Your task to perform on an android device: Go to Google Image 0: 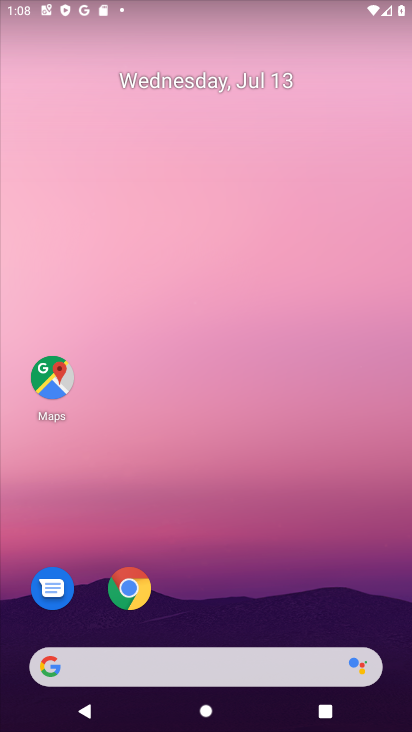
Step 0: drag from (309, 590) to (196, 14)
Your task to perform on an android device: Go to Google Image 1: 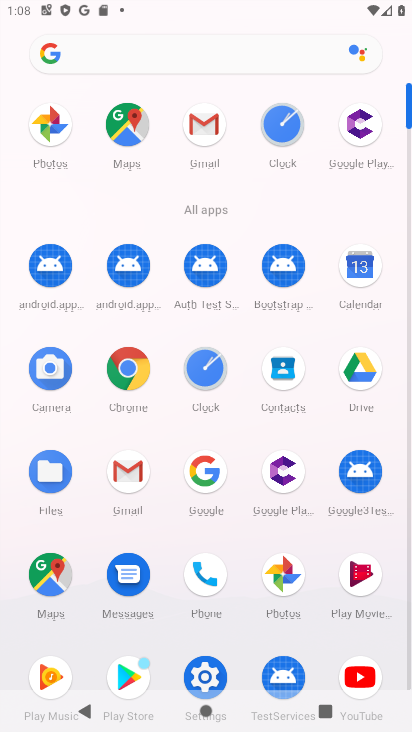
Step 1: click (217, 484)
Your task to perform on an android device: Go to Google Image 2: 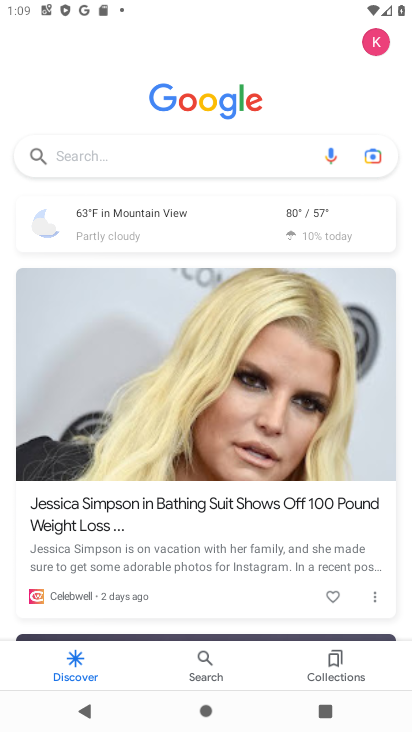
Step 2: task complete